Your task to perform on an android device: allow cookies in the chrome app Image 0: 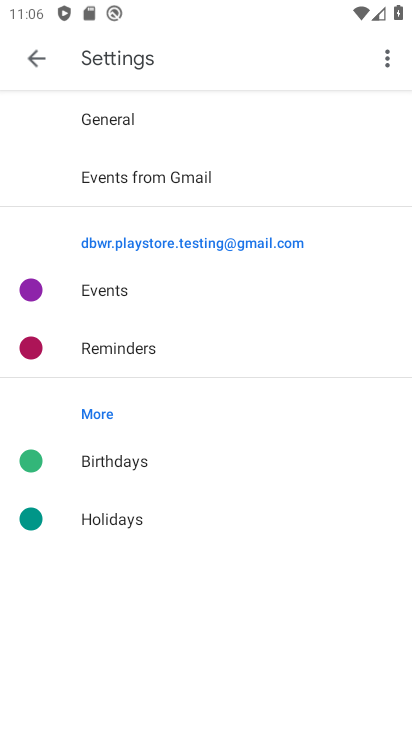
Step 0: press home button
Your task to perform on an android device: allow cookies in the chrome app Image 1: 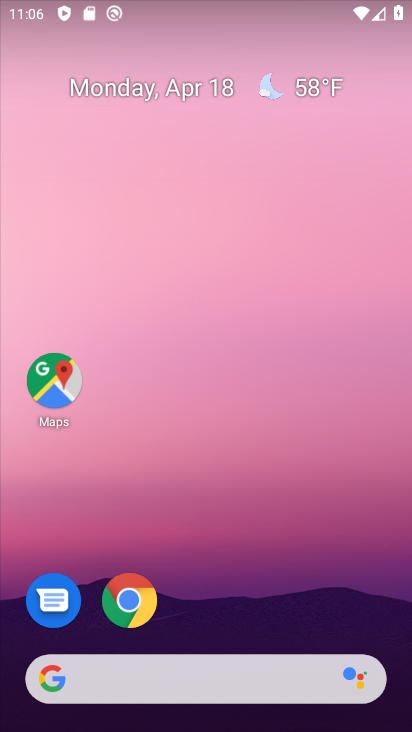
Step 1: click (145, 601)
Your task to perform on an android device: allow cookies in the chrome app Image 2: 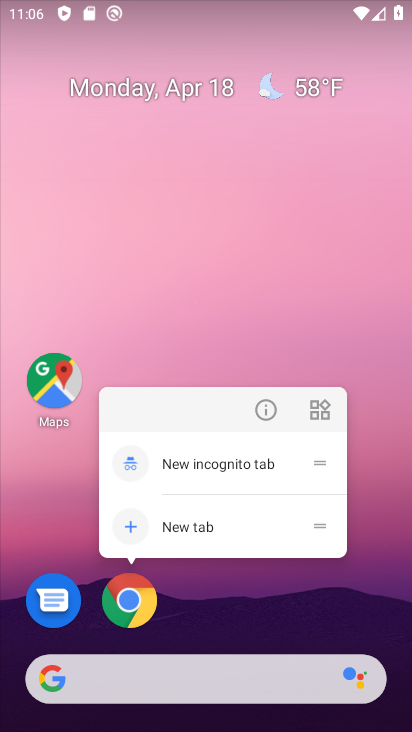
Step 2: click (114, 592)
Your task to perform on an android device: allow cookies in the chrome app Image 3: 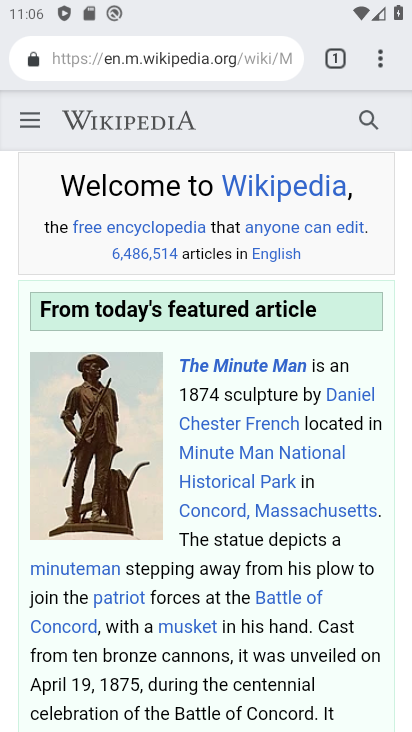
Step 3: drag from (384, 59) to (167, 646)
Your task to perform on an android device: allow cookies in the chrome app Image 4: 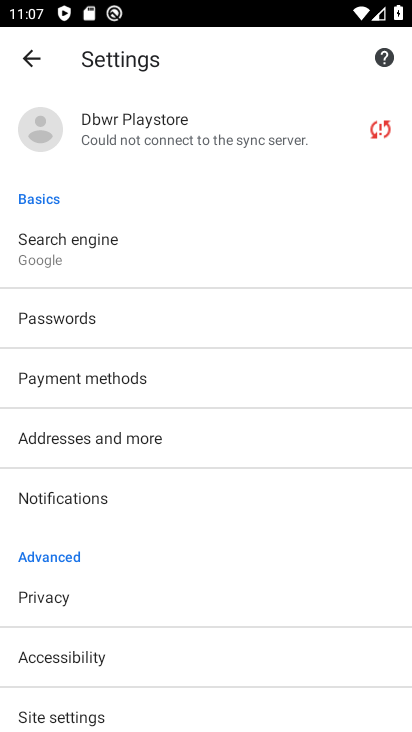
Step 4: click (92, 714)
Your task to perform on an android device: allow cookies in the chrome app Image 5: 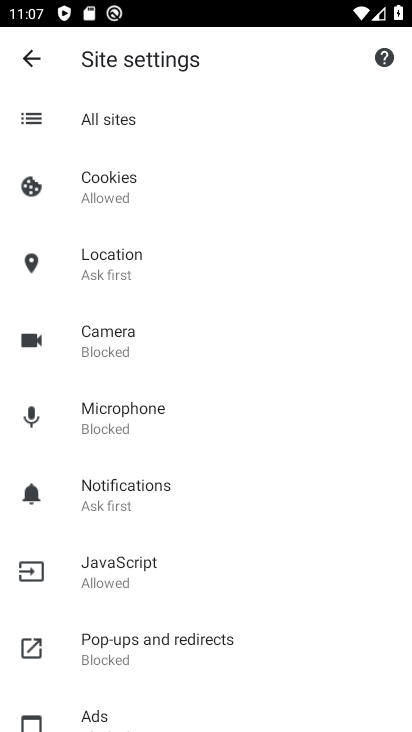
Step 5: click (163, 192)
Your task to perform on an android device: allow cookies in the chrome app Image 6: 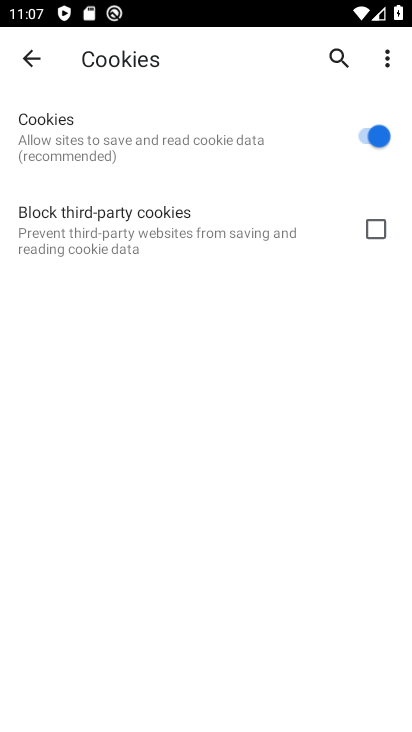
Step 6: task complete